Your task to perform on an android device: turn smart compose on in the gmail app Image 0: 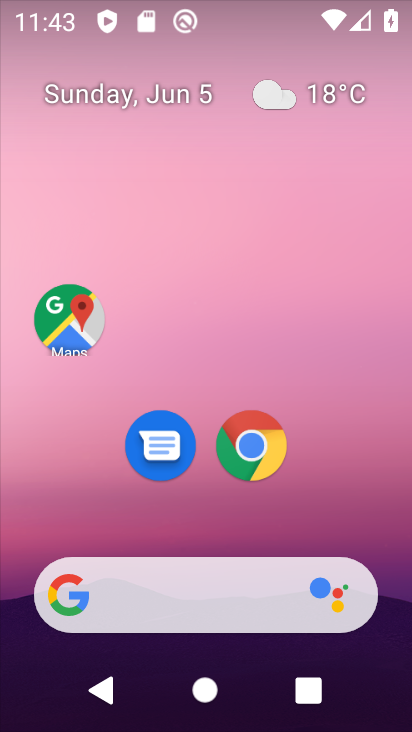
Step 0: drag from (276, 619) to (409, 638)
Your task to perform on an android device: turn smart compose on in the gmail app Image 1: 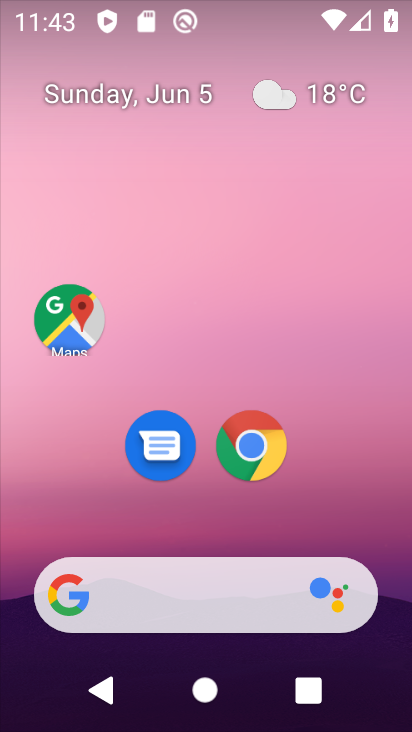
Step 1: click (360, 499)
Your task to perform on an android device: turn smart compose on in the gmail app Image 2: 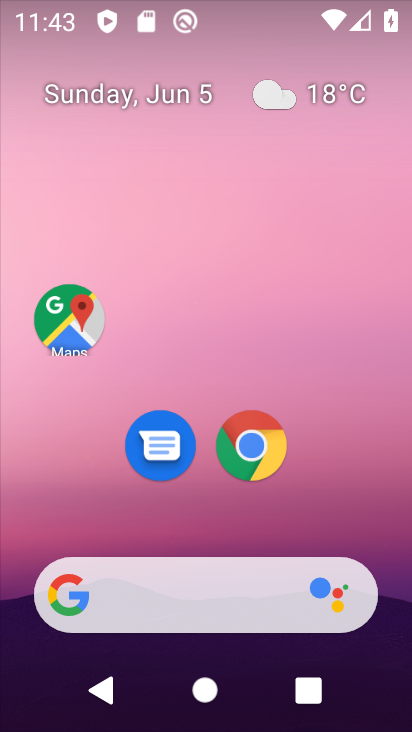
Step 2: drag from (265, 639) to (240, 39)
Your task to perform on an android device: turn smart compose on in the gmail app Image 3: 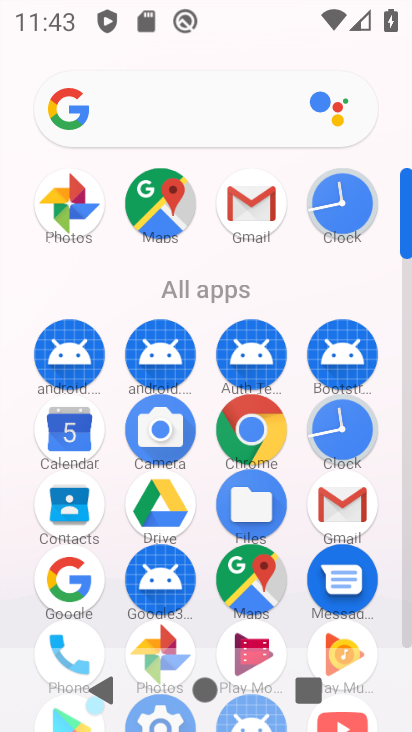
Step 3: click (362, 496)
Your task to perform on an android device: turn smart compose on in the gmail app Image 4: 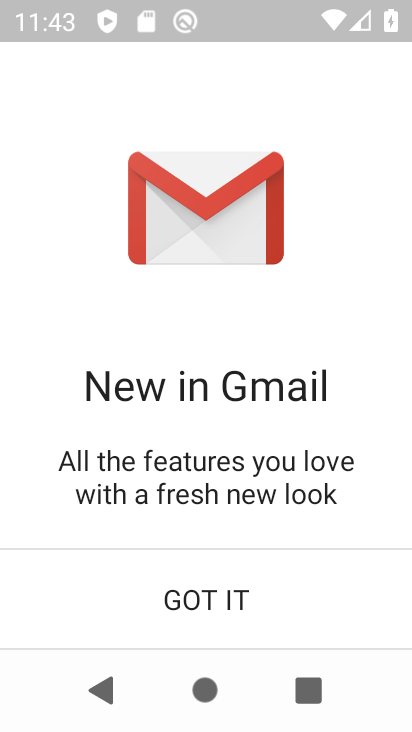
Step 4: click (278, 622)
Your task to perform on an android device: turn smart compose on in the gmail app Image 5: 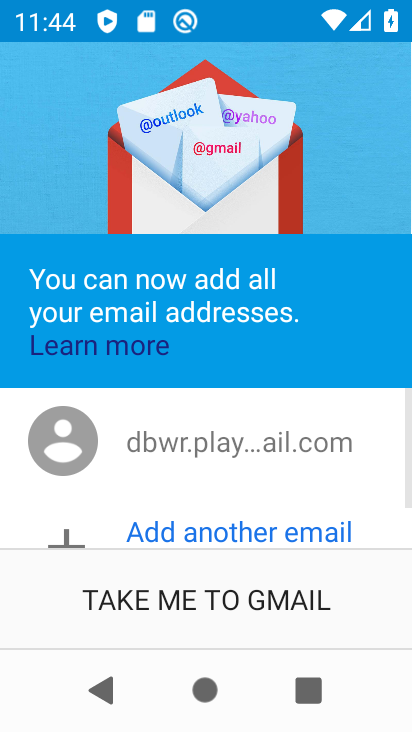
Step 5: click (183, 600)
Your task to perform on an android device: turn smart compose on in the gmail app Image 6: 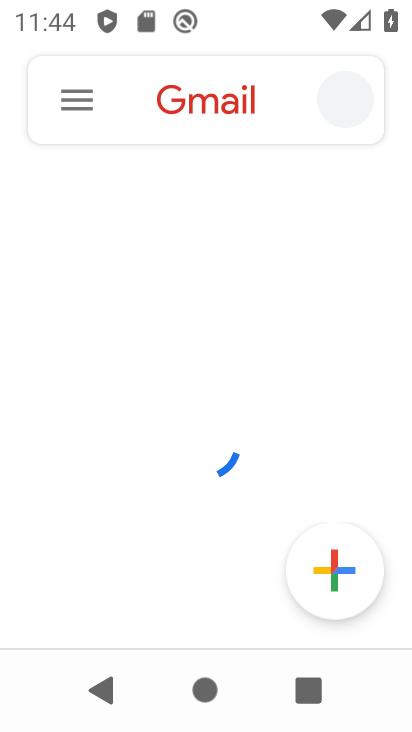
Step 6: click (89, 104)
Your task to perform on an android device: turn smart compose on in the gmail app Image 7: 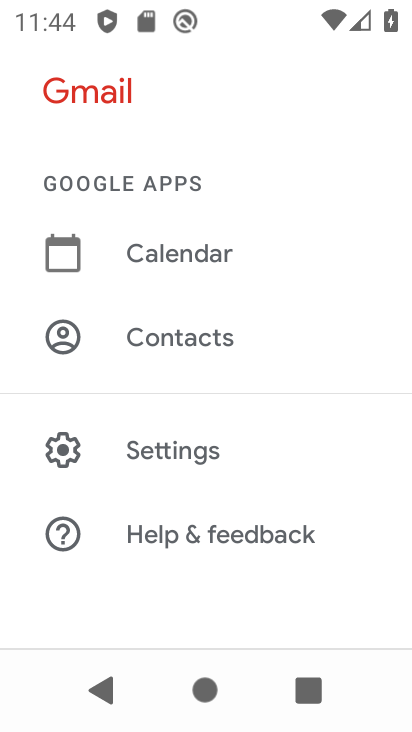
Step 7: click (184, 468)
Your task to perform on an android device: turn smart compose on in the gmail app Image 8: 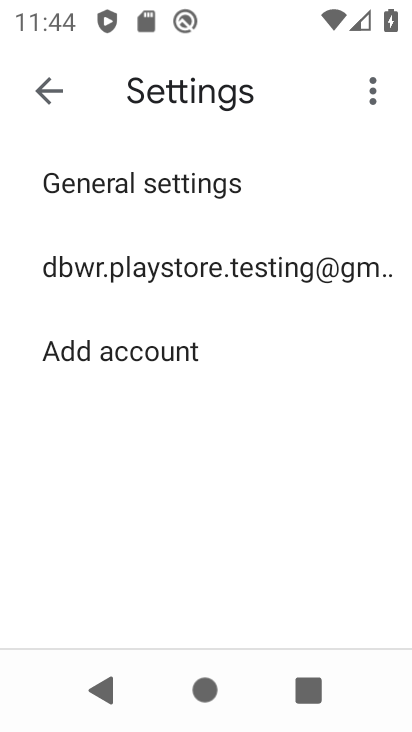
Step 8: drag from (172, 513) to (168, 229)
Your task to perform on an android device: turn smart compose on in the gmail app Image 9: 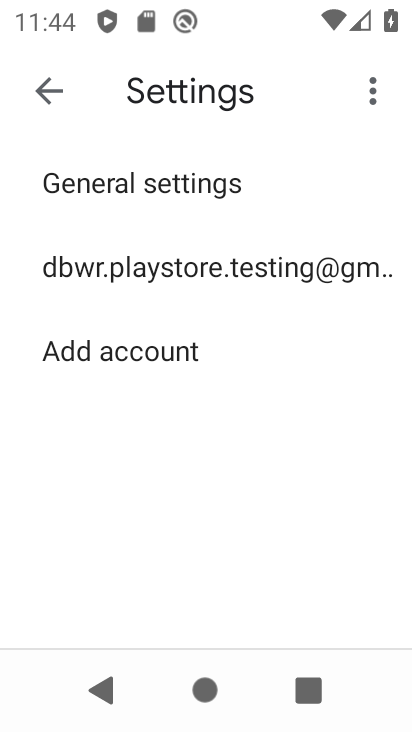
Step 9: click (157, 286)
Your task to perform on an android device: turn smart compose on in the gmail app Image 10: 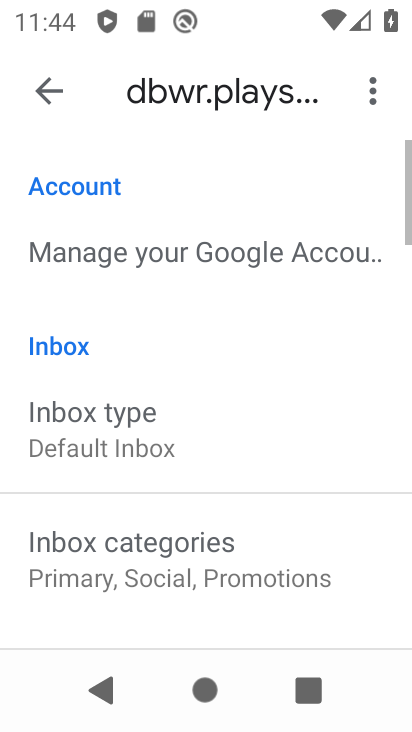
Step 10: drag from (195, 500) to (187, 212)
Your task to perform on an android device: turn smart compose on in the gmail app Image 11: 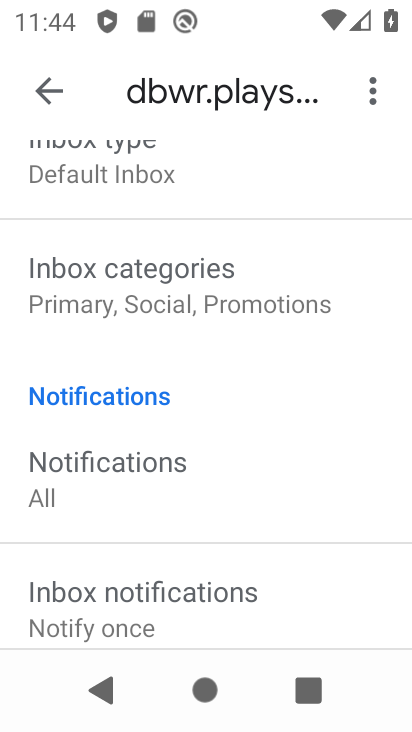
Step 11: drag from (214, 553) to (231, 301)
Your task to perform on an android device: turn smart compose on in the gmail app Image 12: 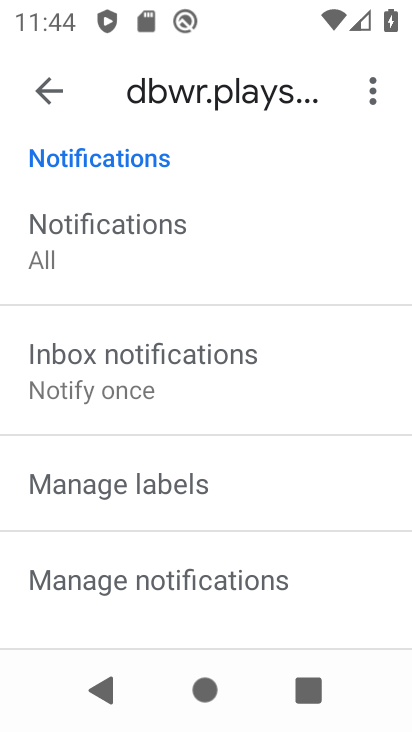
Step 12: drag from (199, 634) to (205, 299)
Your task to perform on an android device: turn smart compose on in the gmail app Image 13: 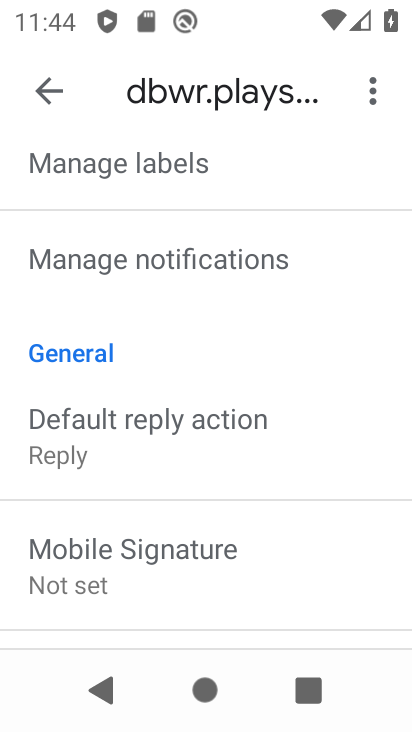
Step 13: drag from (220, 530) to (231, 274)
Your task to perform on an android device: turn smart compose on in the gmail app Image 14: 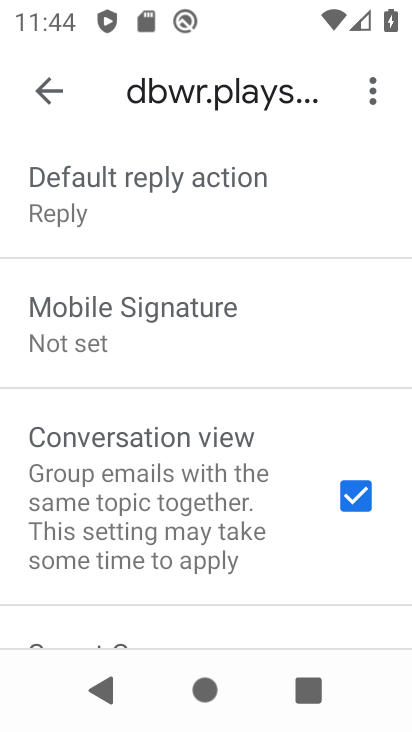
Step 14: drag from (205, 549) to (210, 290)
Your task to perform on an android device: turn smart compose on in the gmail app Image 15: 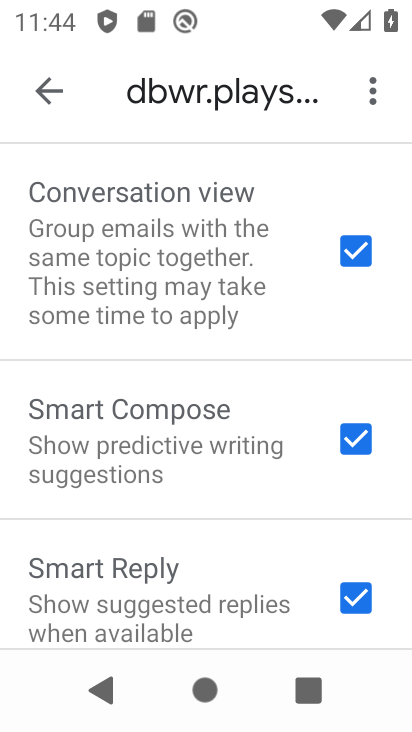
Step 15: click (348, 424)
Your task to perform on an android device: turn smart compose on in the gmail app Image 16: 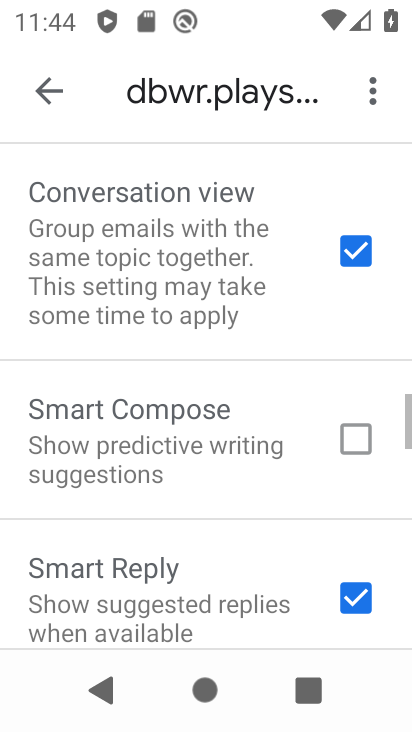
Step 16: click (361, 435)
Your task to perform on an android device: turn smart compose on in the gmail app Image 17: 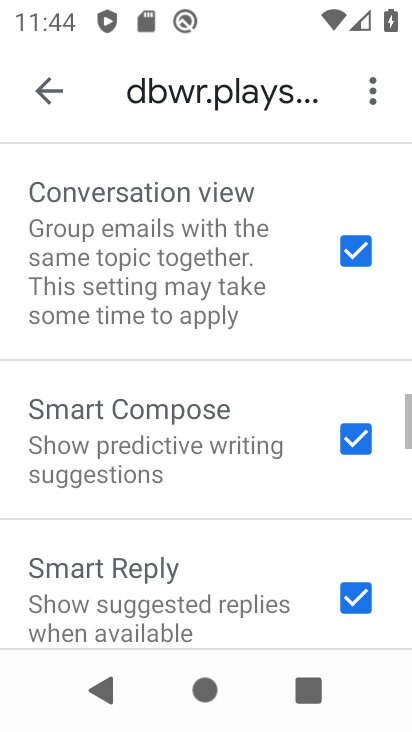
Step 17: task complete